Your task to perform on an android device: What's the weather going to be this weekend? Image 0: 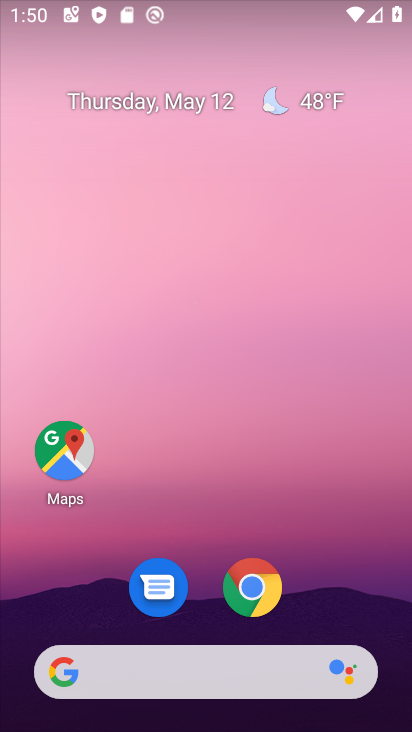
Step 0: drag from (248, 634) to (304, 188)
Your task to perform on an android device: What's the weather going to be this weekend? Image 1: 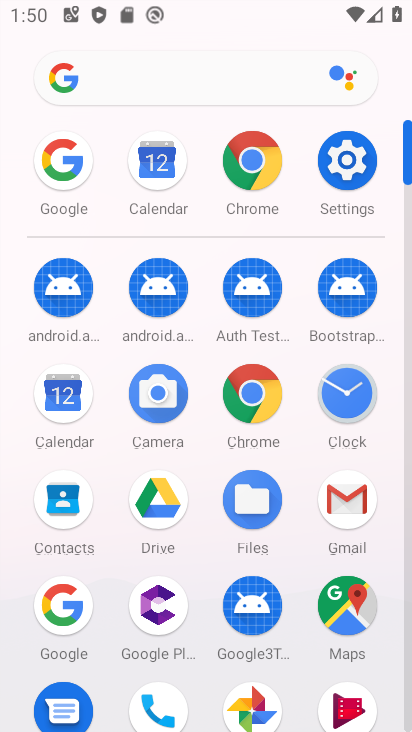
Step 1: click (81, 625)
Your task to perform on an android device: What's the weather going to be this weekend? Image 2: 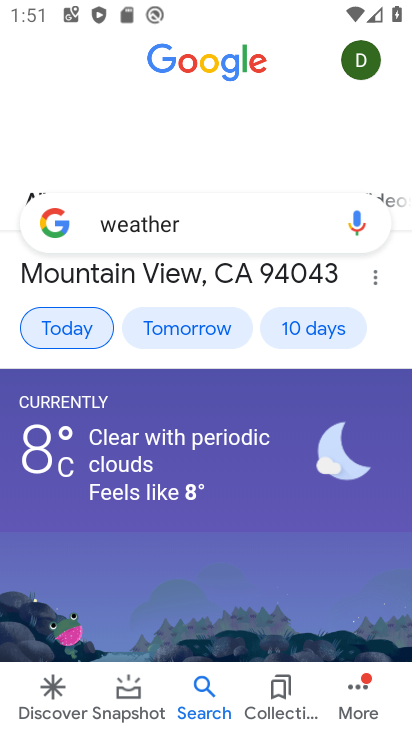
Step 2: click (303, 335)
Your task to perform on an android device: What's the weather going to be this weekend? Image 3: 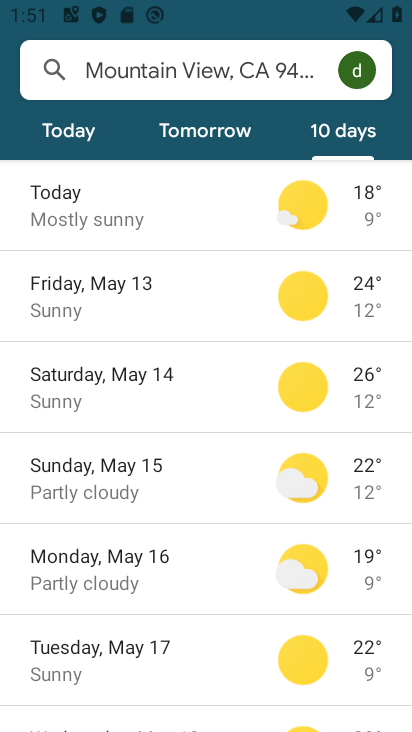
Step 3: task complete